Your task to perform on an android device: What's the weather going to be this weekend? Image 0: 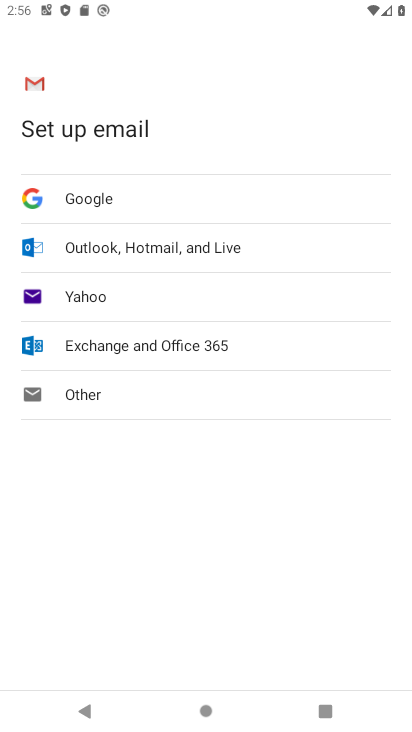
Step 0: press home button
Your task to perform on an android device: What's the weather going to be this weekend? Image 1: 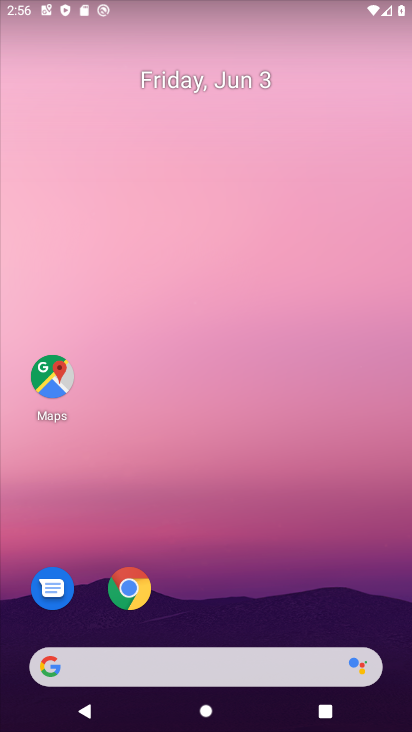
Step 1: click (170, 661)
Your task to perform on an android device: What's the weather going to be this weekend? Image 2: 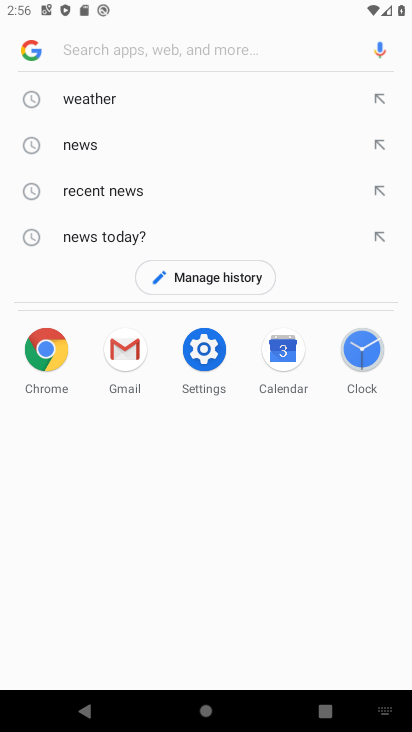
Step 2: click (101, 102)
Your task to perform on an android device: What's the weather going to be this weekend? Image 3: 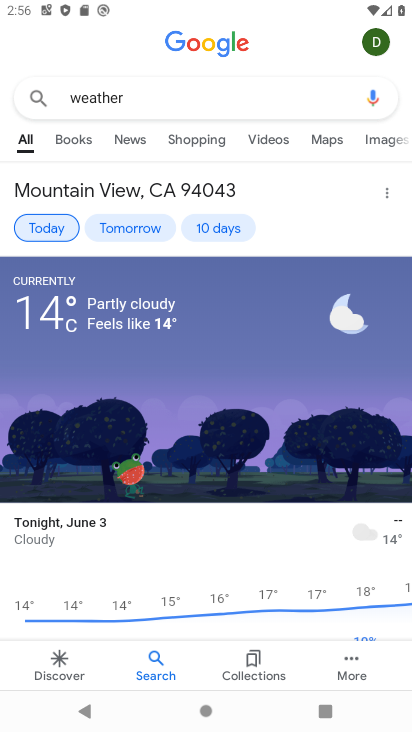
Step 3: click (195, 236)
Your task to perform on an android device: What's the weather going to be this weekend? Image 4: 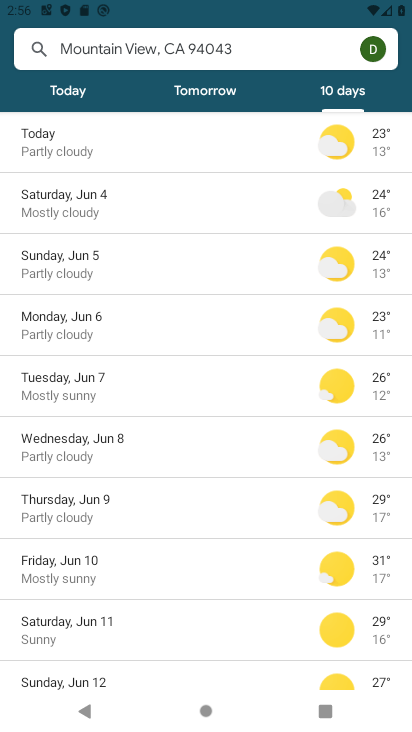
Step 4: task complete